Your task to perform on an android device: What's the weather today? Image 0: 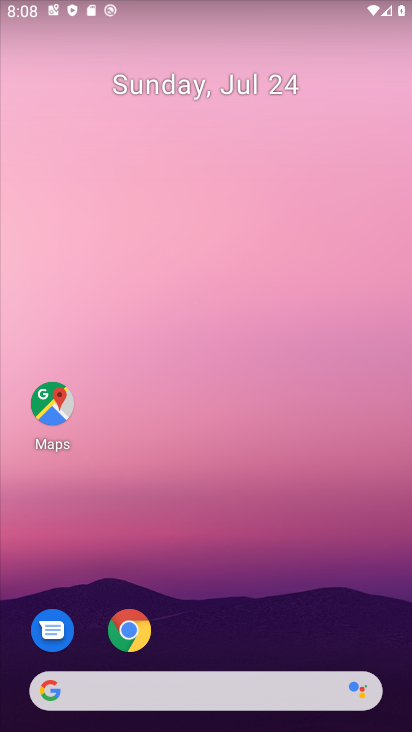
Step 0: drag from (210, 634) to (188, 163)
Your task to perform on an android device: What's the weather today? Image 1: 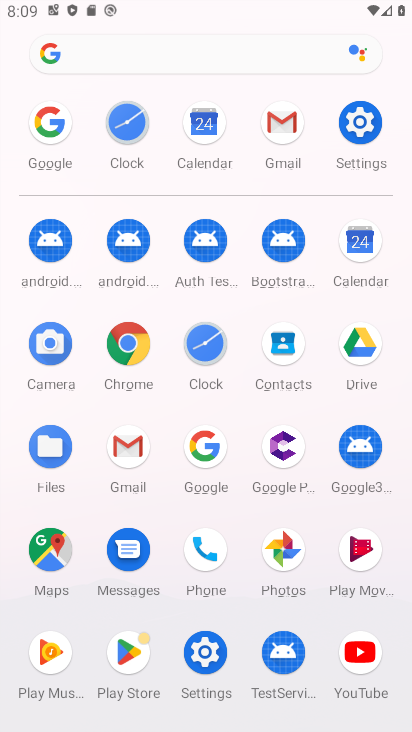
Step 1: click (196, 455)
Your task to perform on an android device: What's the weather today? Image 2: 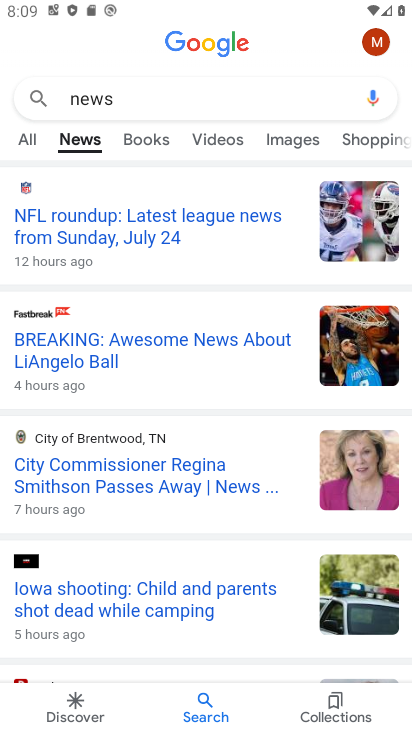
Step 2: click (180, 100)
Your task to perform on an android device: What's the weather today? Image 3: 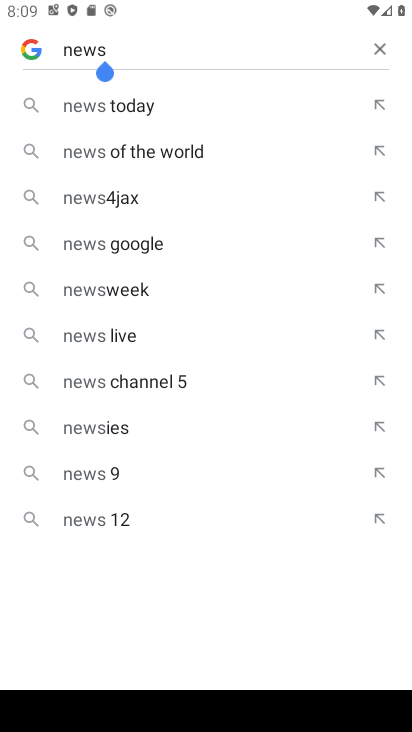
Step 3: click (372, 47)
Your task to perform on an android device: What's the weather today? Image 4: 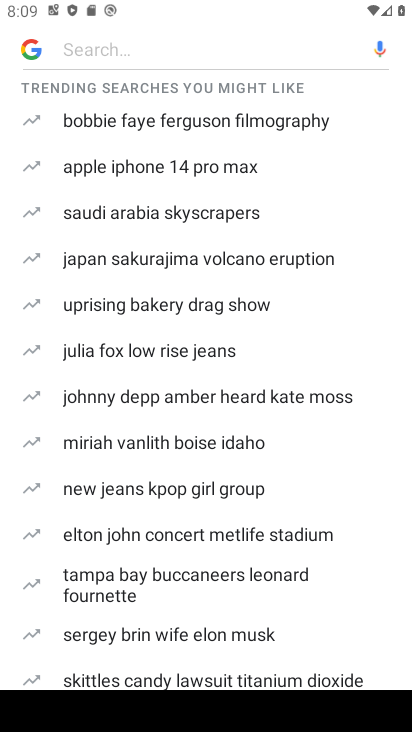
Step 4: click (99, 51)
Your task to perform on an android device: What's the weather today? Image 5: 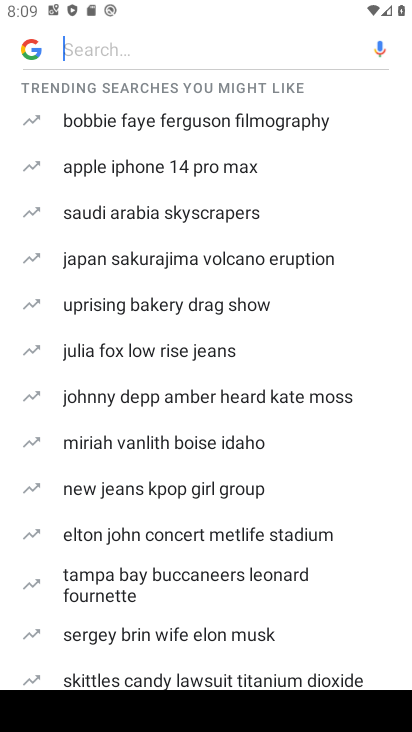
Step 5: type "weather today"
Your task to perform on an android device: What's the weather today? Image 6: 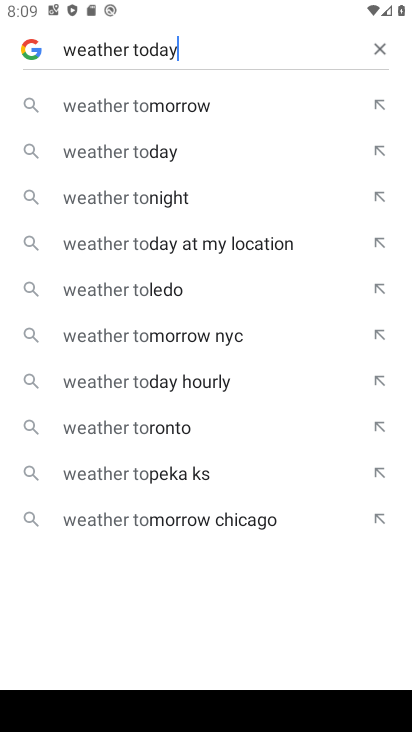
Step 6: type ""
Your task to perform on an android device: What's the weather today? Image 7: 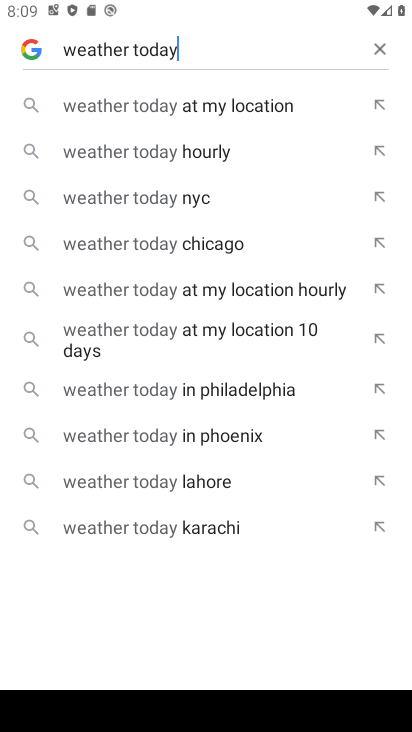
Step 7: click (167, 117)
Your task to perform on an android device: What's the weather today? Image 8: 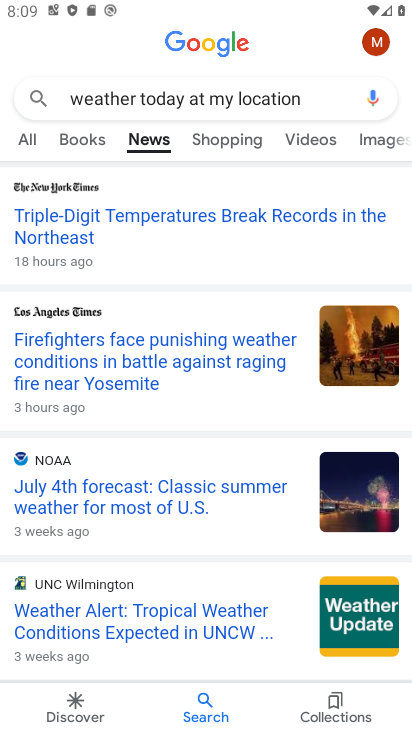
Step 8: click (29, 156)
Your task to perform on an android device: What's the weather today? Image 9: 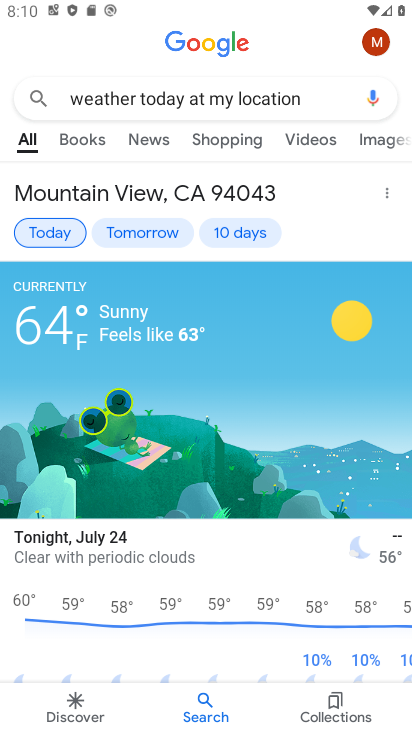
Step 9: task complete